Your task to perform on an android device: check storage Image 0: 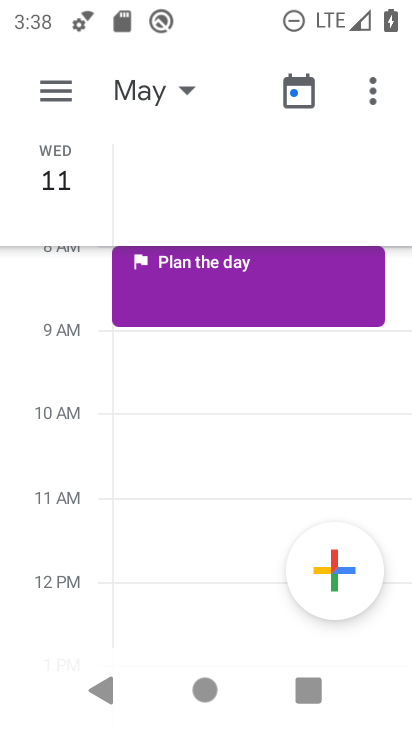
Step 0: press home button
Your task to perform on an android device: check storage Image 1: 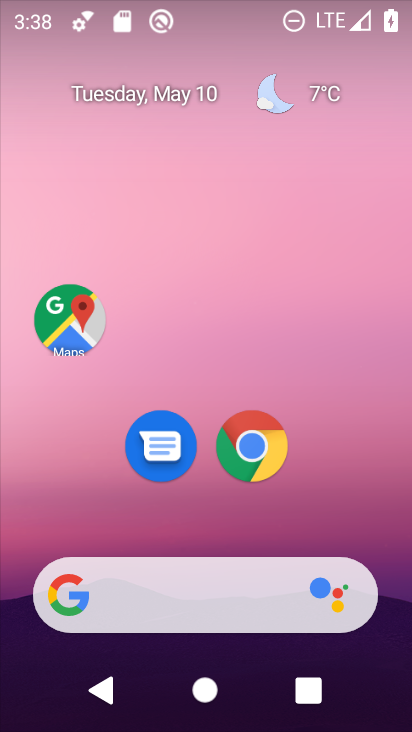
Step 1: drag from (311, 505) to (252, 86)
Your task to perform on an android device: check storage Image 2: 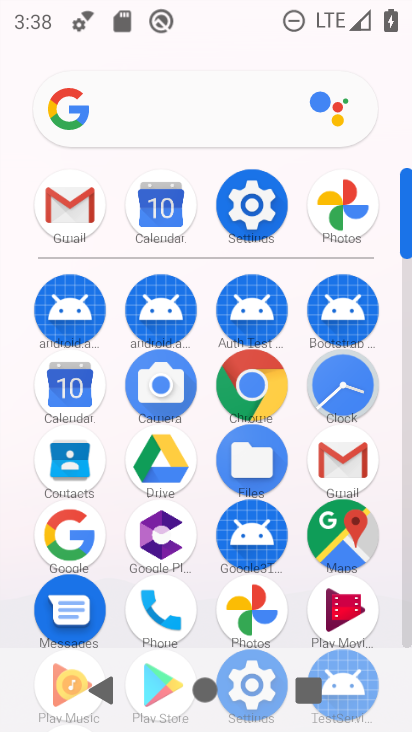
Step 2: click (264, 199)
Your task to perform on an android device: check storage Image 3: 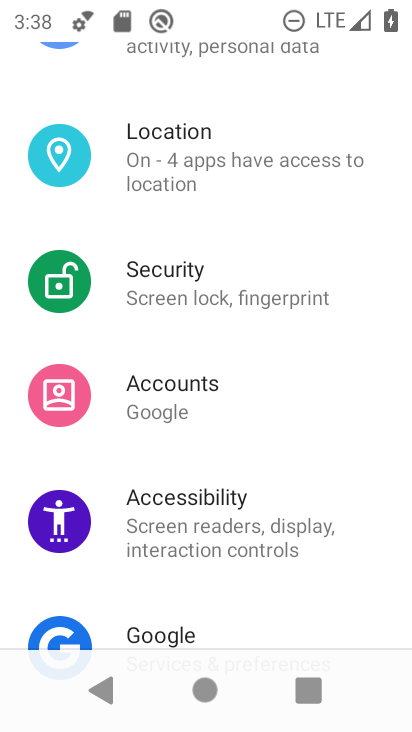
Step 3: drag from (260, 122) to (259, 599)
Your task to perform on an android device: check storage Image 4: 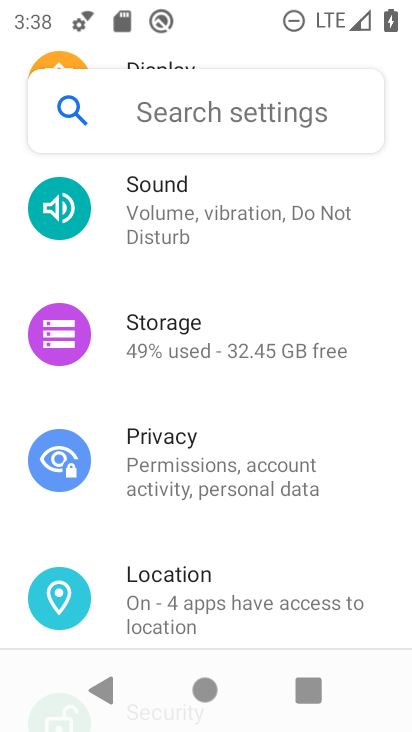
Step 4: click (220, 321)
Your task to perform on an android device: check storage Image 5: 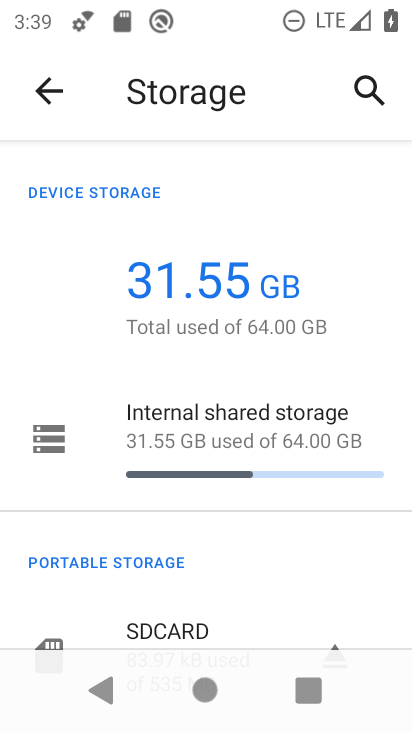
Step 5: task complete